Your task to perform on an android device: Look up the best rated kitchen knives on Amazon. Image 0: 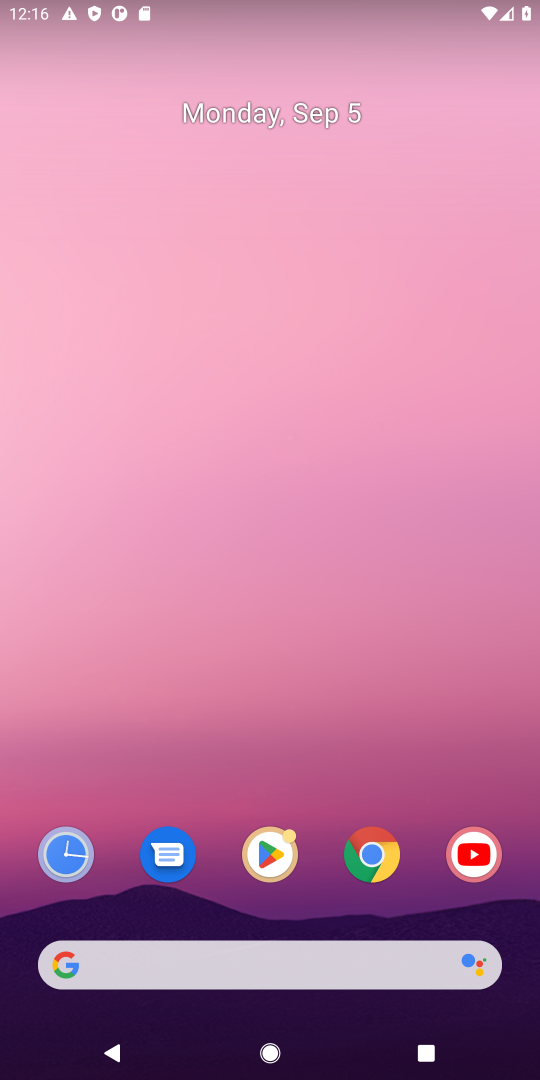
Step 0: press home button
Your task to perform on an android device: Look up the best rated kitchen knives on Amazon. Image 1: 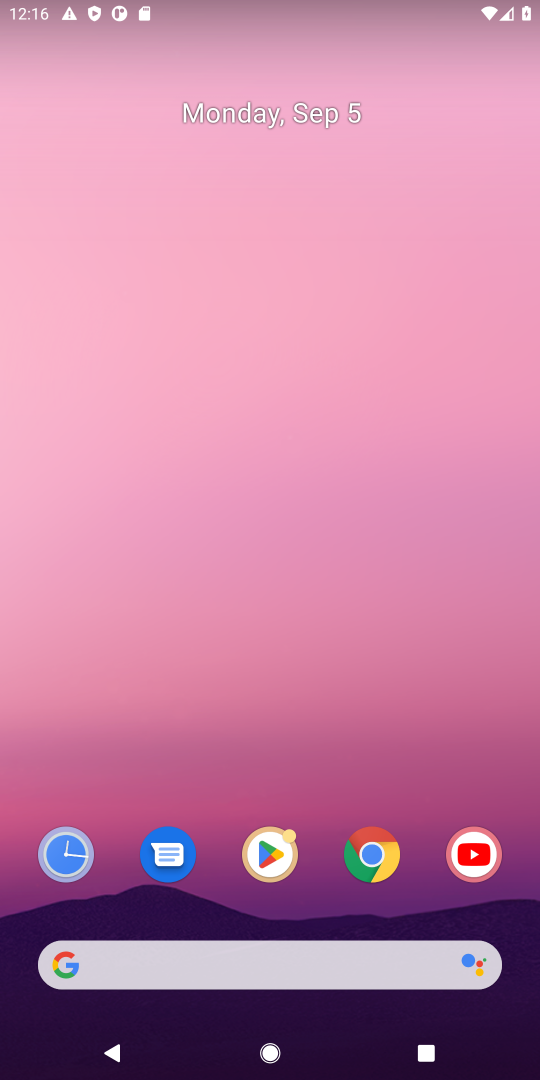
Step 1: click (249, 957)
Your task to perform on an android device: Look up the best rated kitchen knives on Amazon. Image 2: 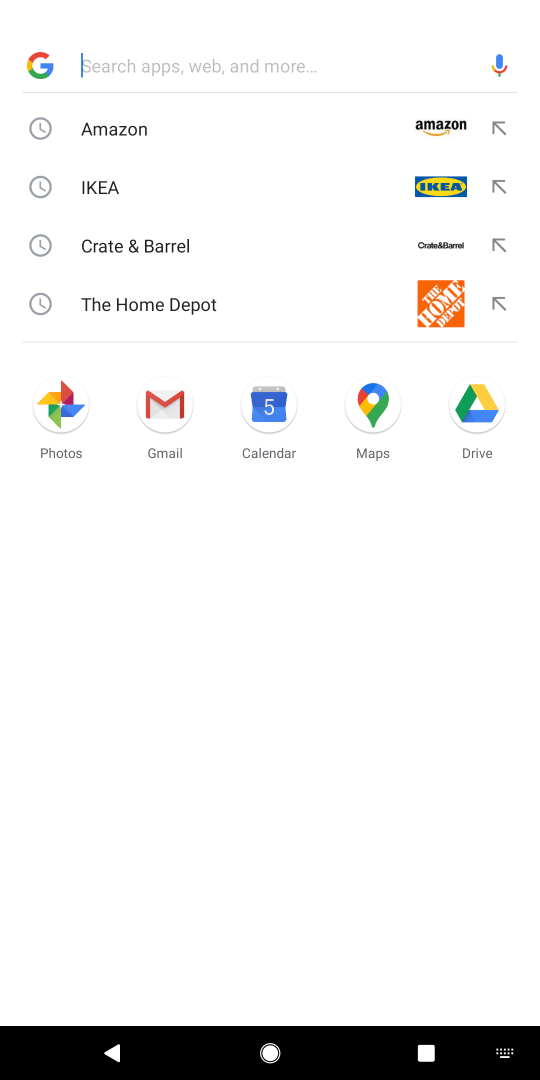
Step 2: press enter
Your task to perform on an android device: Look up the best rated kitchen knives on Amazon. Image 3: 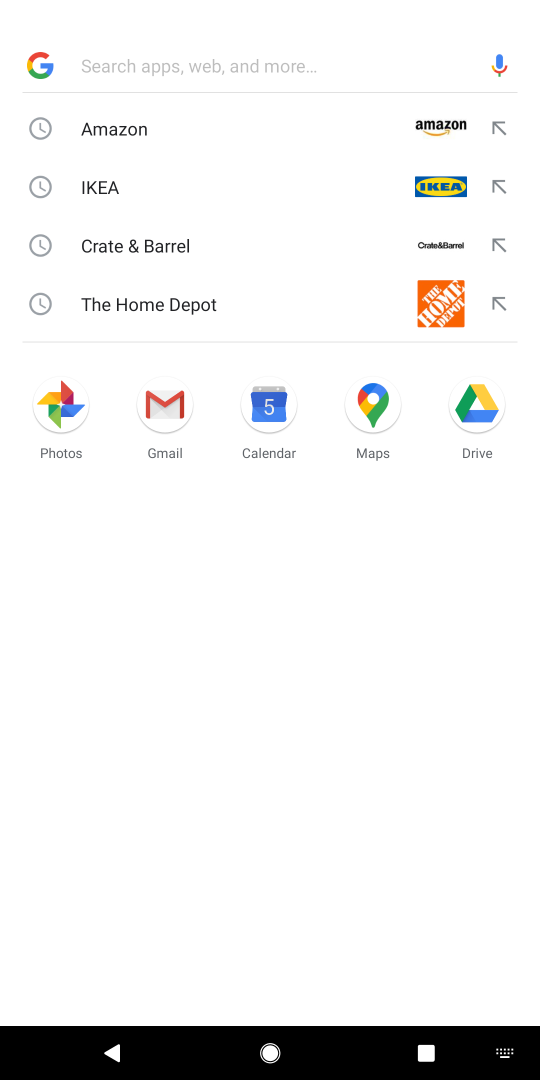
Step 3: type "amazon"
Your task to perform on an android device: Look up the best rated kitchen knives on Amazon. Image 4: 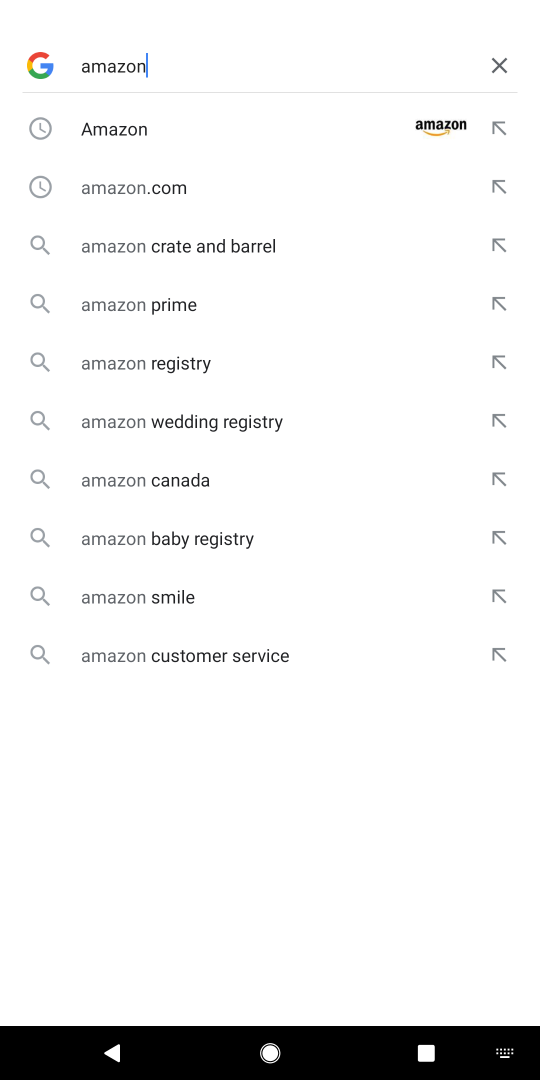
Step 4: click (208, 136)
Your task to perform on an android device: Look up the best rated kitchen knives on Amazon. Image 5: 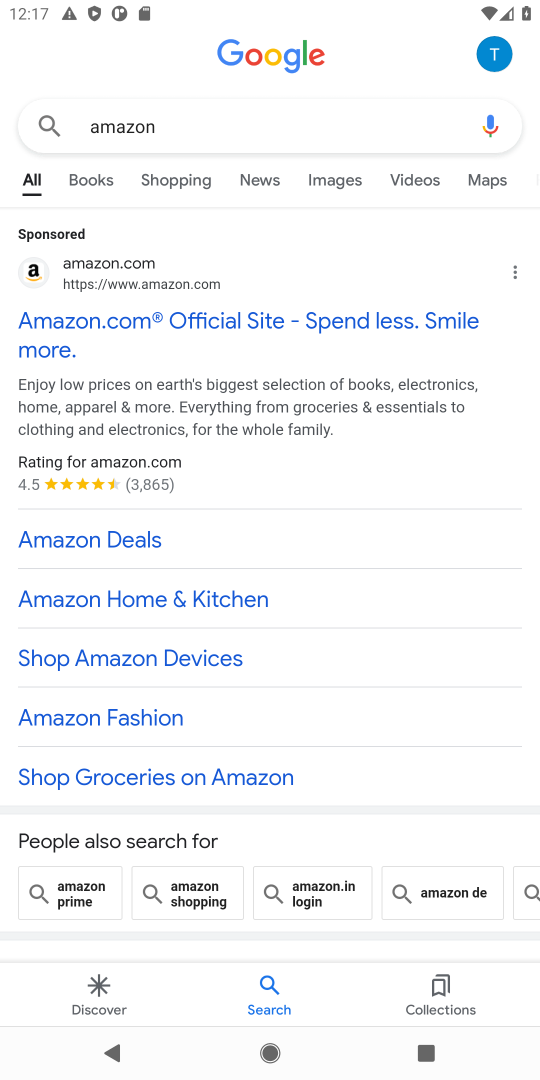
Step 5: click (263, 314)
Your task to perform on an android device: Look up the best rated kitchen knives on Amazon. Image 6: 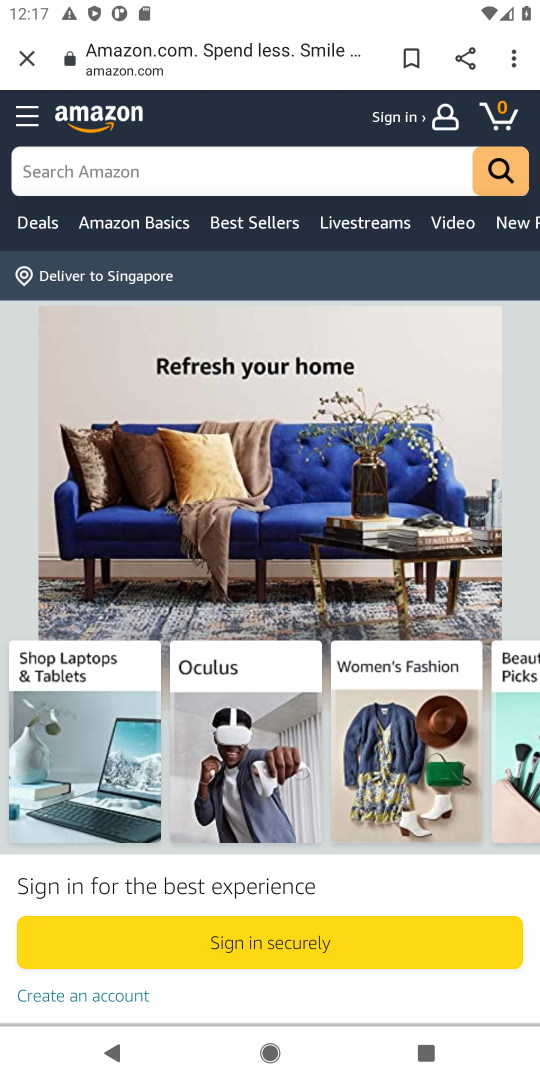
Step 6: click (141, 164)
Your task to perform on an android device: Look up the best rated kitchen knives on Amazon. Image 7: 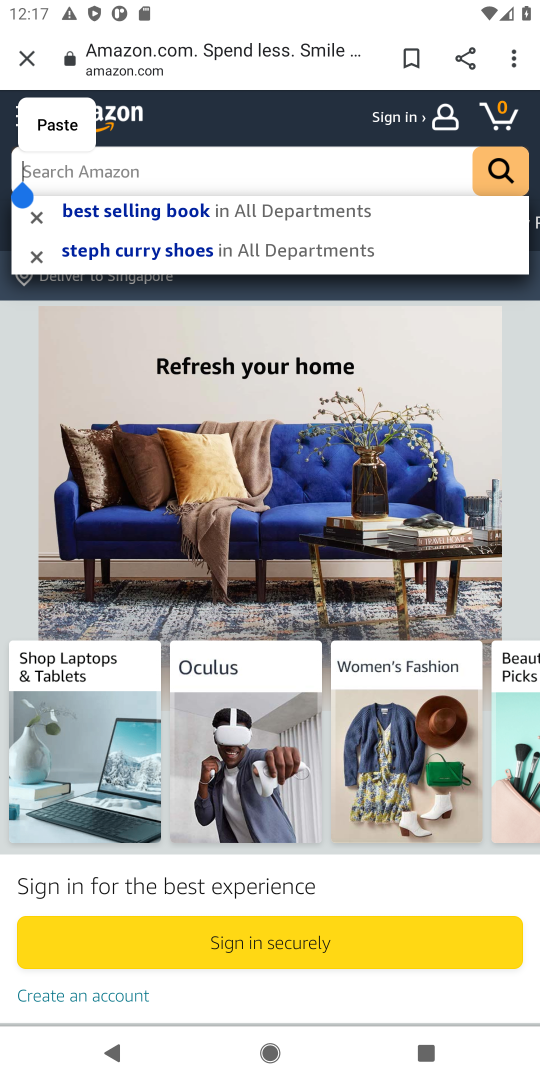
Step 7: type "best rated kitvhen knives"
Your task to perform on an android device: Look up the best rated kitchen knives on Amazon. Image 8: 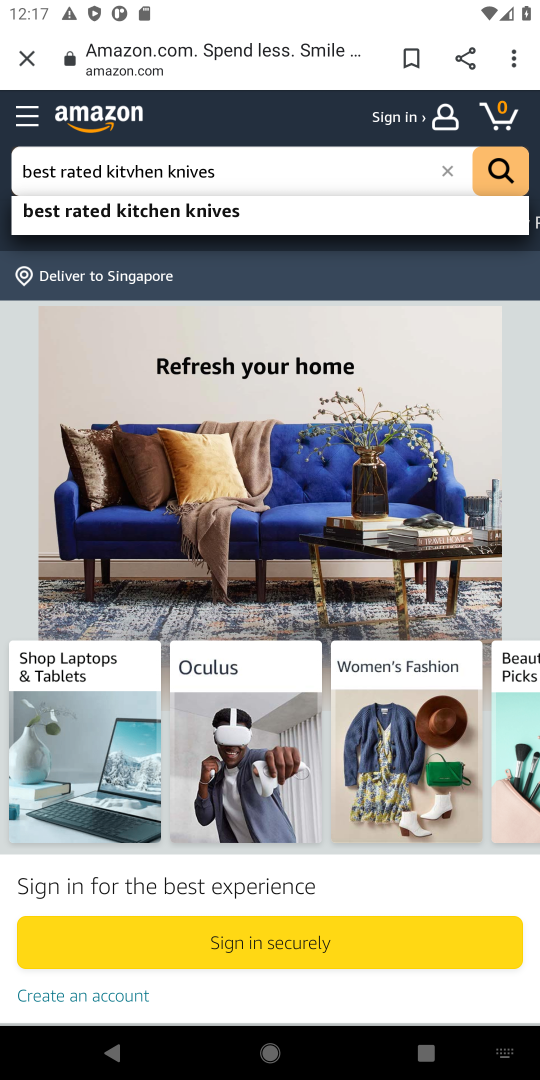
Step 8: click (246, 209)
Your task to perform on an android device: Look up the best rated kitchen knives on Amazon. Image 9: 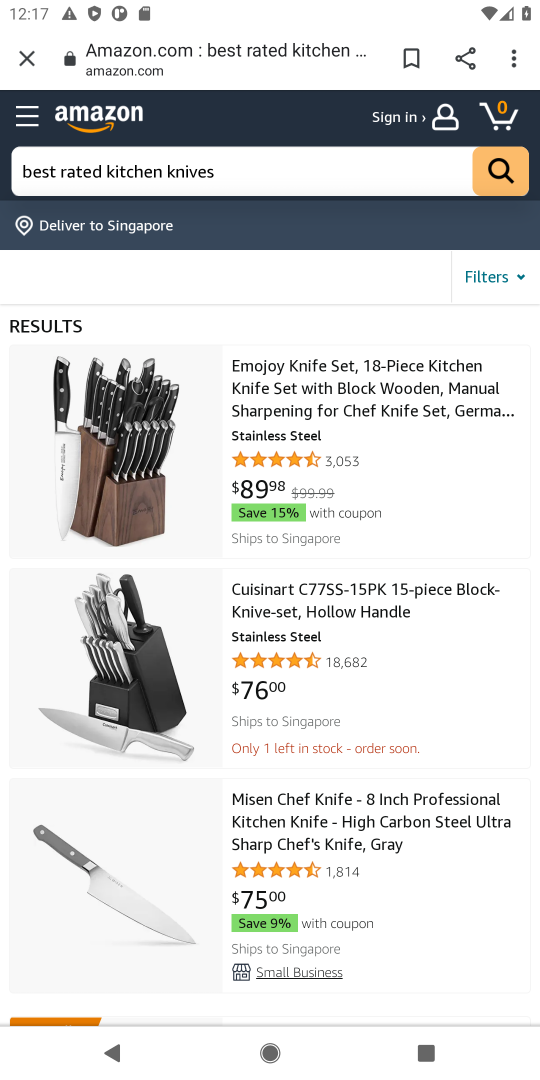
Step 9: task complete